Your task to perform on an android device: all mails in gmail Image 0: 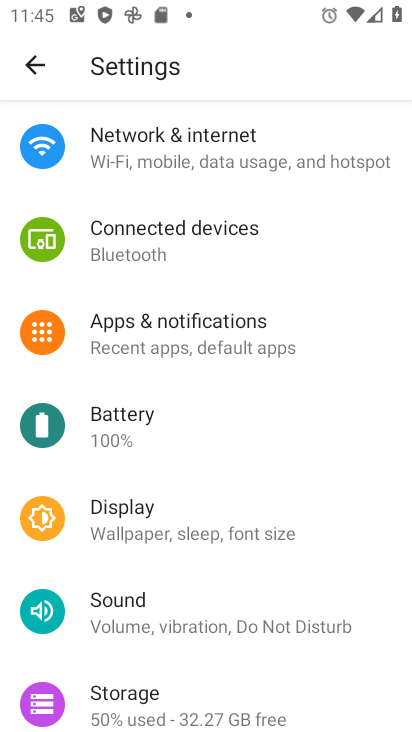
Step 0: press home button
Your task to perform on an android device: all mails in gmail Image 1: 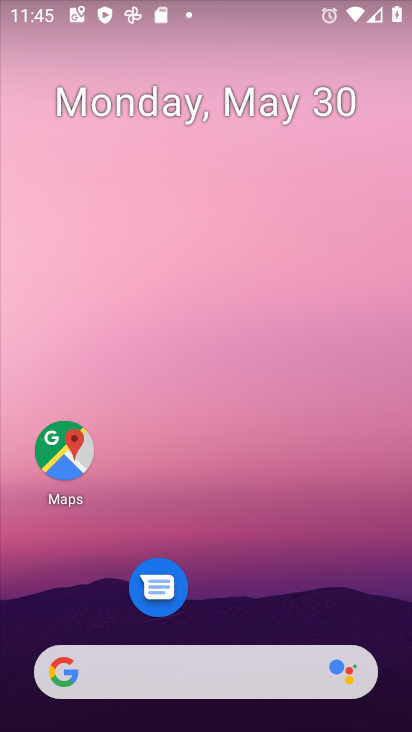
Step 1: drag from (212, 639) to (242, 17)
Your task to perform on an android device: all mails in gmail Image 2: 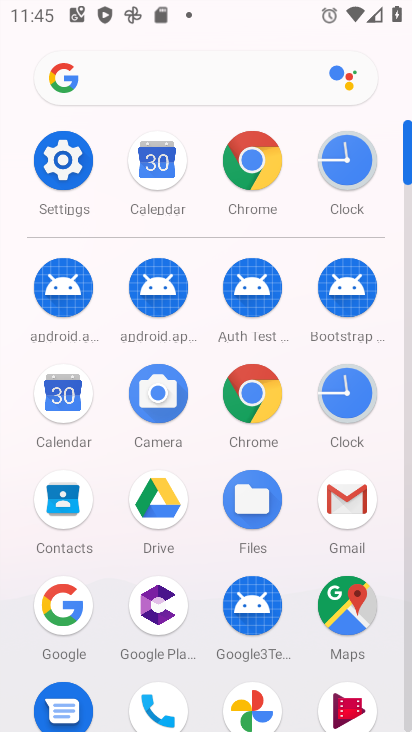
Step 2: click (351, 494)
Your task to perform on an android device: all mails in gmail Image 3: 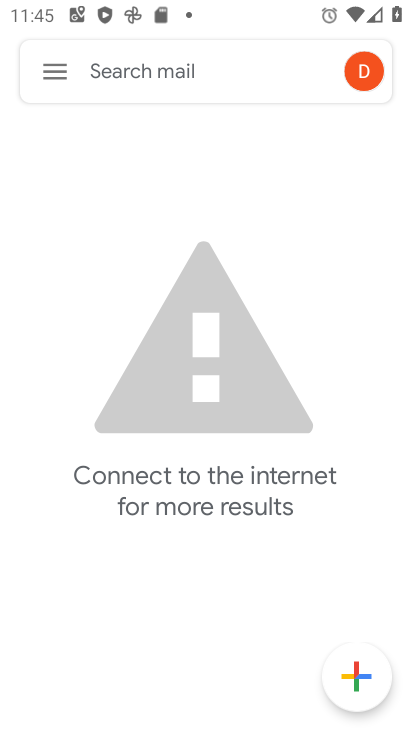
Step 3: click (44, 61)
Your task to perform on an android device: all mails in gmail Image 4: 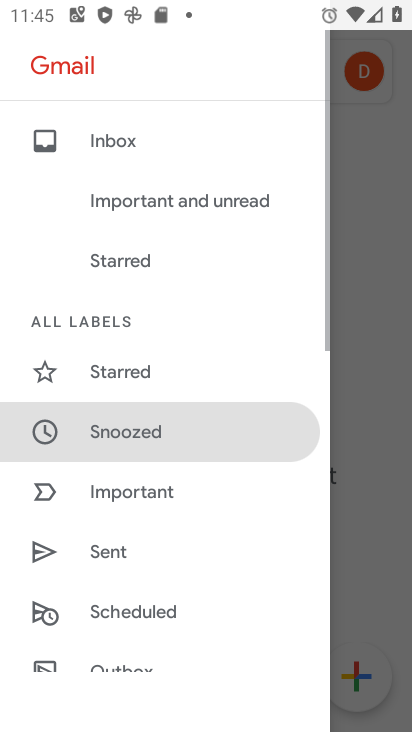
Step 4: drag from (202, 576) to (218, 143)
Your task to perform on an android device: all mails in gmail Image 5: 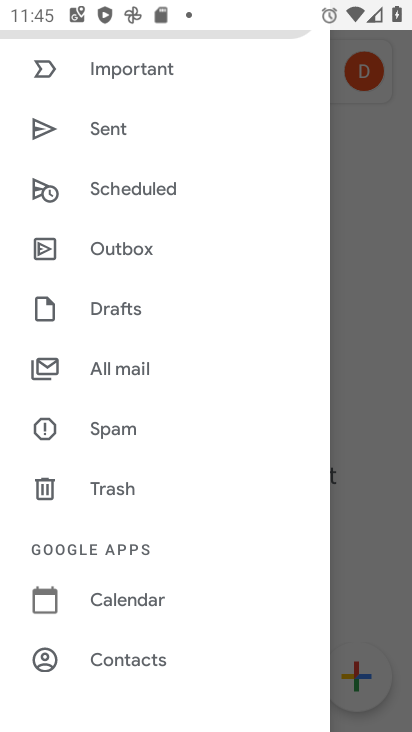
Step 5: click (110, 365)
Your task to perform on an android device: all mails in gmail Image 6: 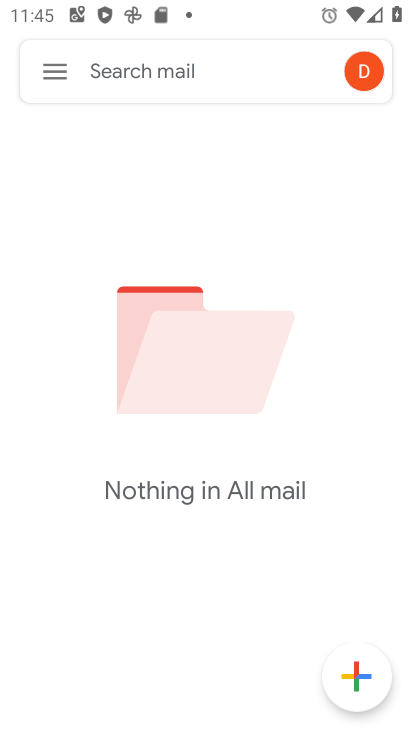
Step 6: task complete